Your task to perform on an android device: toggle improve location accuracy Image 0: 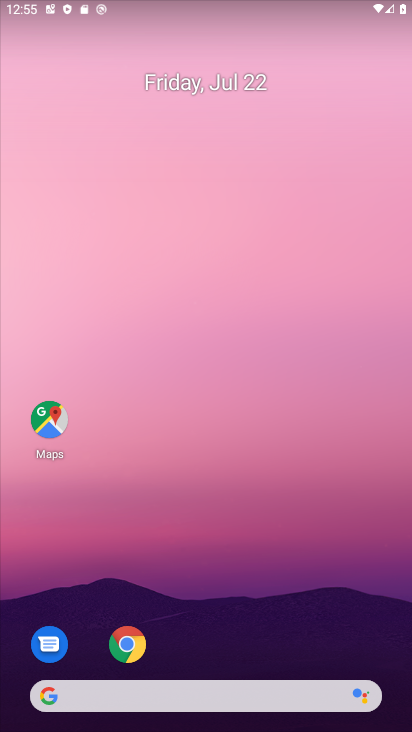
Step 0: press home button
Your task to perform on an android device: toggle improve location accuracy Image 1: 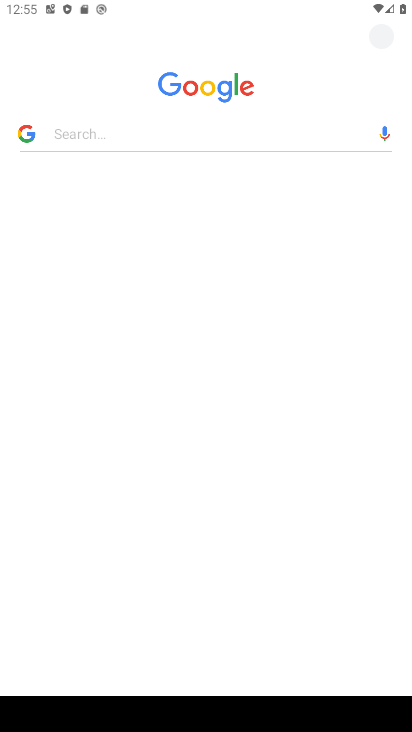
Step 1: drag from (213, 651) to (246, 23)
Your task to perform on an android device: toggle improve location accuracy Image 2: 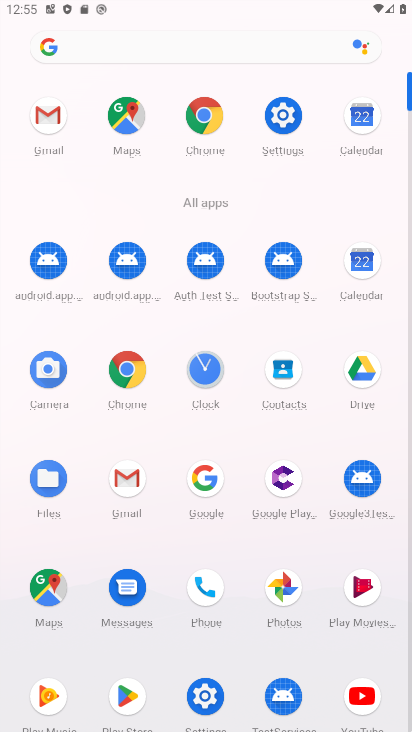
Step 2: click (279, 110)
Your task to perform on an android device: toggle improve location accuracy Image 3: 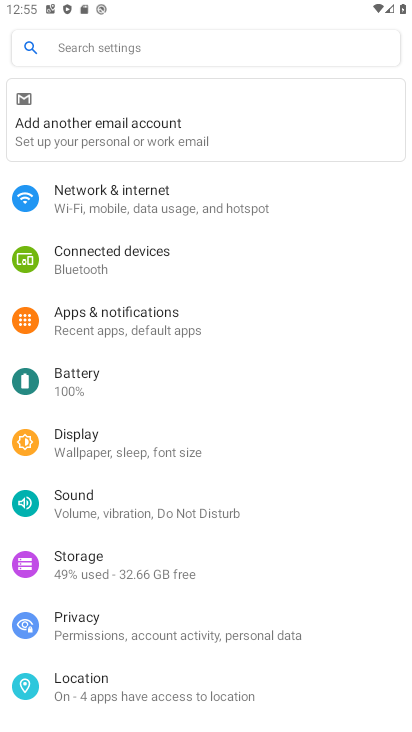
Step 3: click (118, 683)
Your task to perform on an android device: toggle improve location accuracy Image 4: 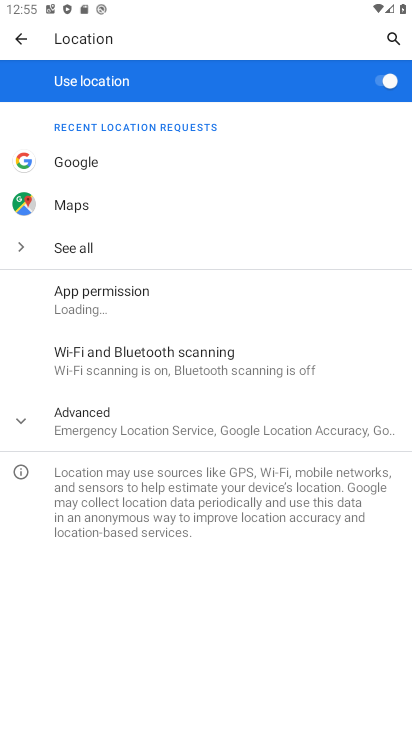
Step 4: click (21, 412)
Your task to perform on an android device: toggle improve location accuracy Image 5: 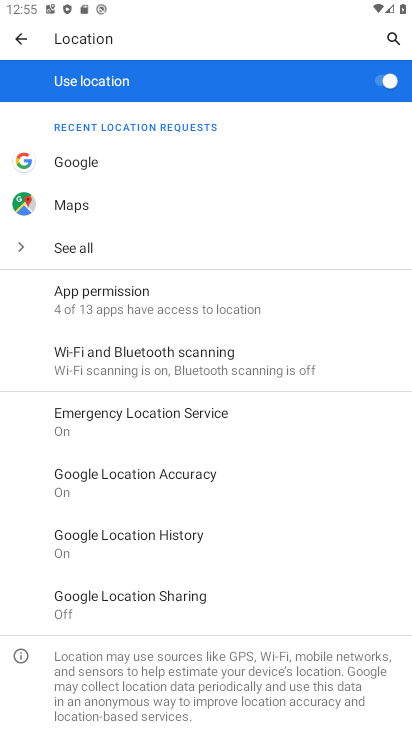
Step 5: click (80, 484)
Your task to perform on an android device: toggle improve location accuracy Image 6: 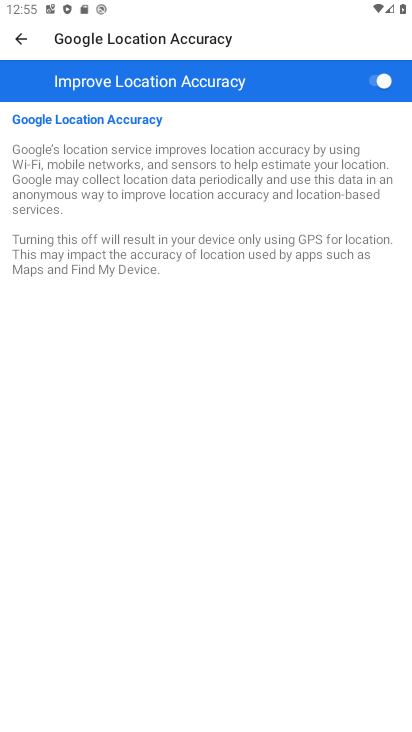
Step 6: click (377, 77)
Your task to perform on an android device: toggle improve location accuracy Image 7: 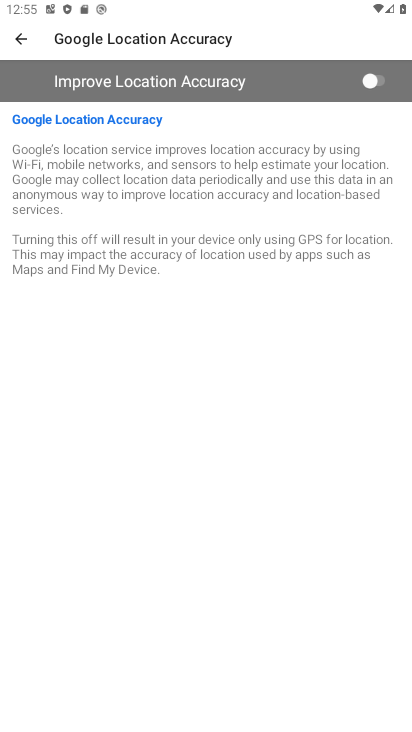
Step 7: task complete